Your task to perform on an android device: toggle data saver in the chrome app Image 0: 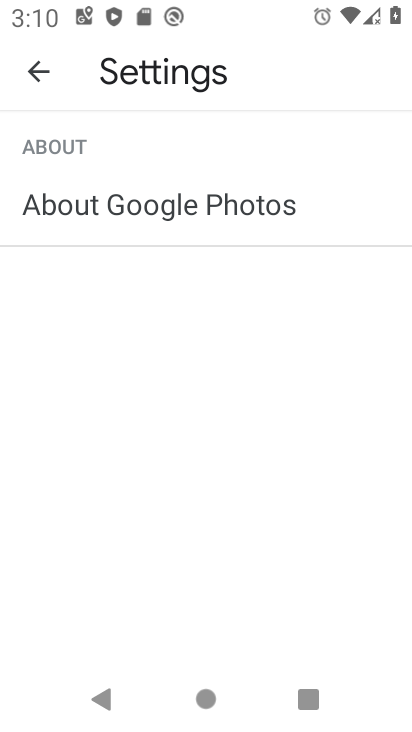
Step 0: press home button
Your task to perform on an android device: toggle data saver in the chrome app Image 1: 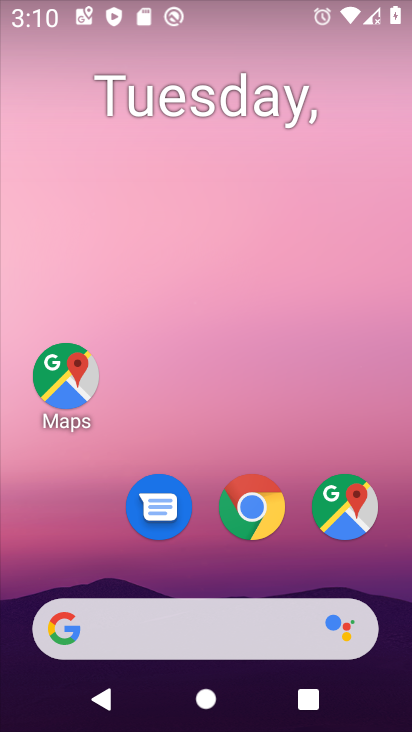
Step 1: drag from (294, 483) to (290, 173)
Your task to perform on an android device: toggle data saver in the chrome app Image 2: 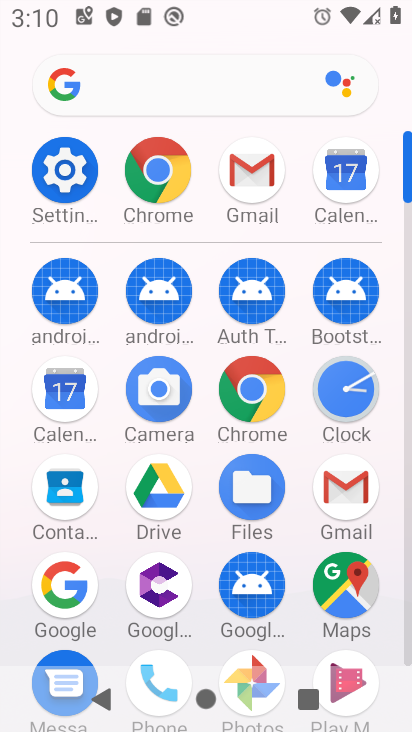
Step 2: click (263, 388)
Your task to perform on an android device: toggle data saver in the chrome app Image 3: 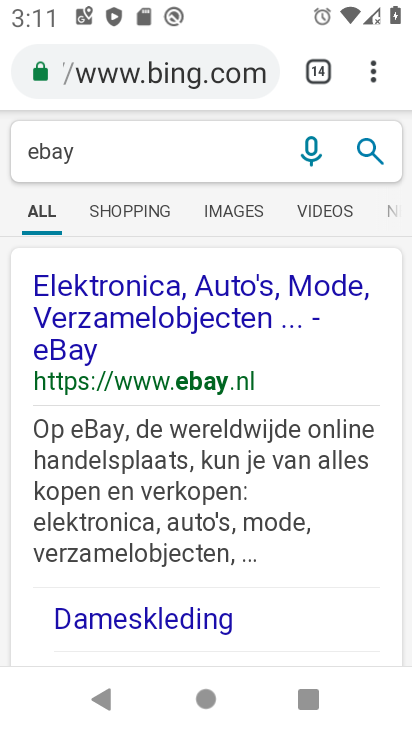
Step 3: click (364, 72)
Your task to perform on an android device: toggle data saver in the chrome app Image 4: 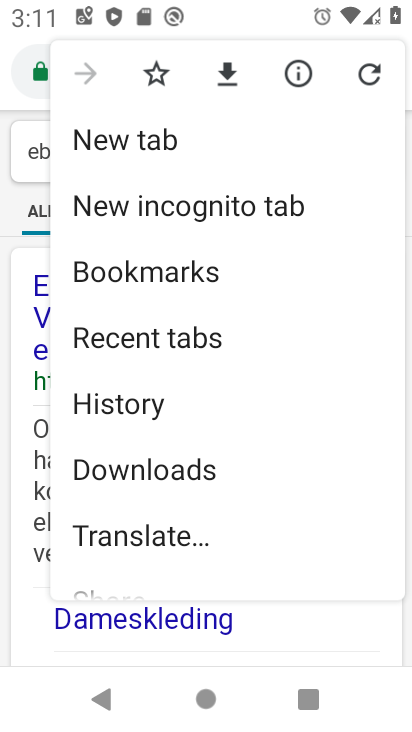
Step 4: drag from (219, 513) to (240, 286)
Your task to perform on an android device: toggle data saver in the chrome app Image 5: 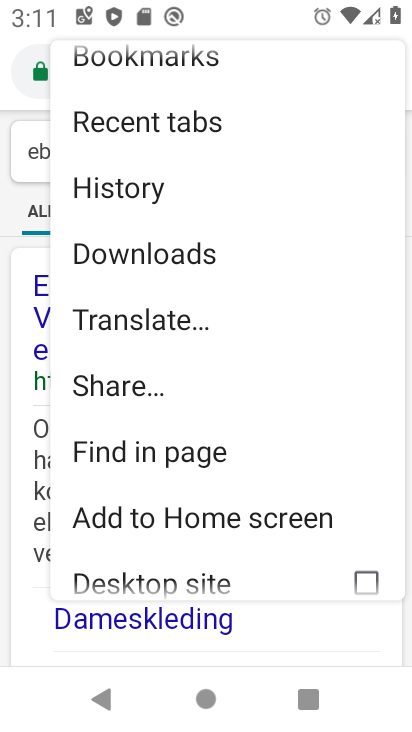
Step 5: drag from (159, 485) to (252, 215)
Your task to perform on an android device: toggle data saver in the chrome app Image 6: 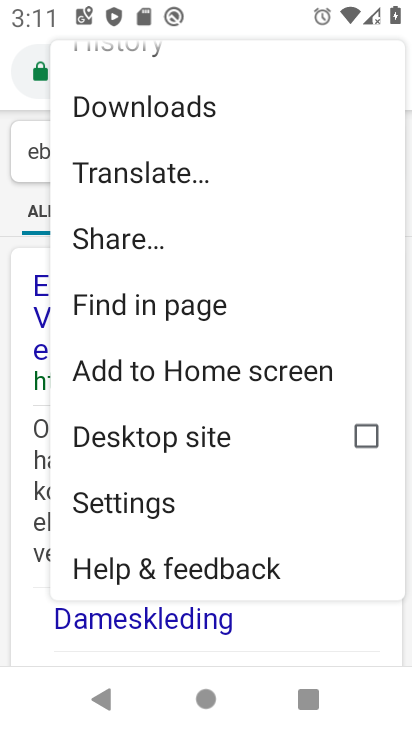
Step 6: click (163, 505)
Your task to perform on an android device: toggle data saver in the chrome app Image 7: 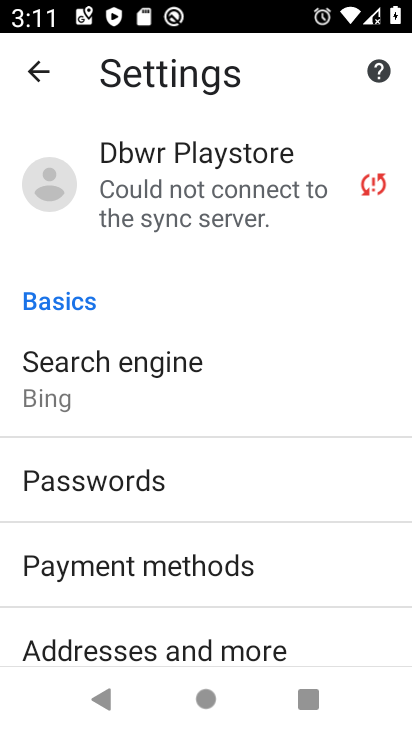
Step 7: drag from (204, 551) to (289, 229)
Your task to perform on an android device: toggle data saver in the chrome app Image 8: 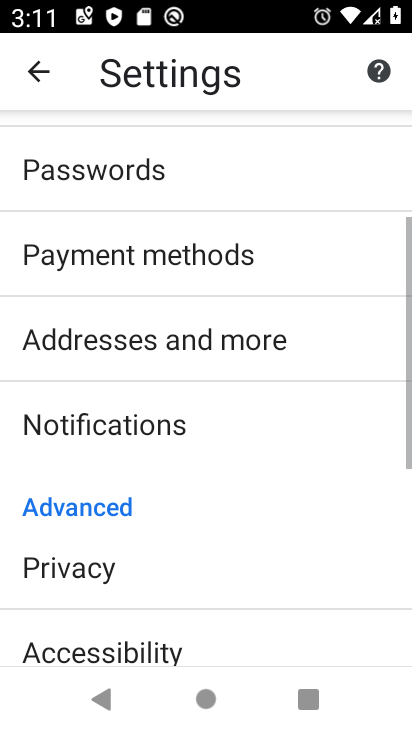
Step 8: drag from (175, 573) to (254, 299)
Your task to perform on an android device: toggle data saver in the chrome app Image 9: 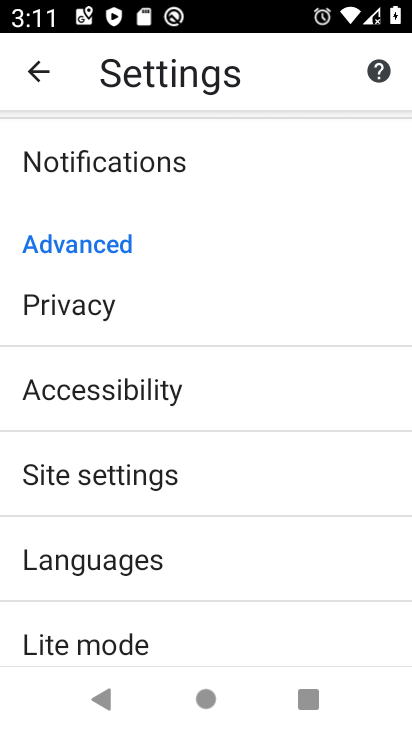
Step 9: drag from (134, 551) to (189, 401)
Your task to perform on an android device: toggle data saver in the chrome app Image 10: 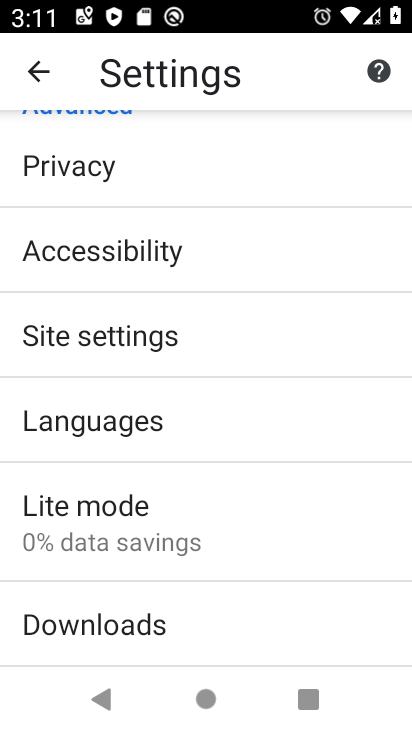
Step 10: click (146, 336)
Your task to perform on an android device: toggle data saver in the chrome app Image 11: 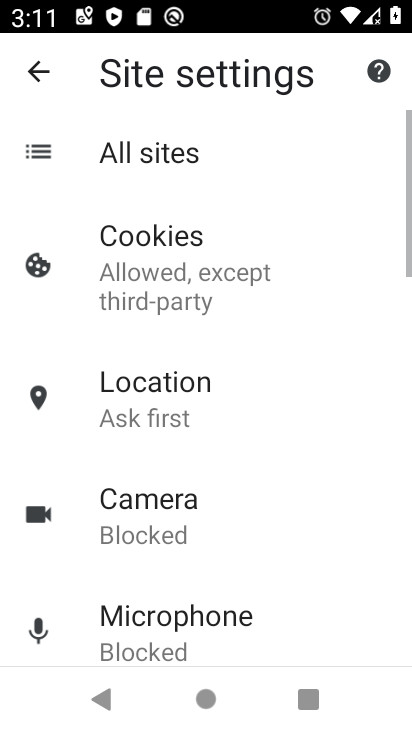
Step 11: click (43, 68)
Your task to perform on an android device: toggle data saver in the chrome app Image 12: 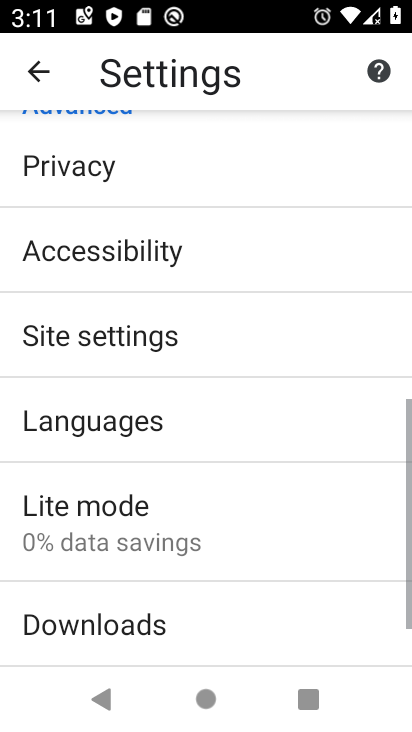
Step 12: click (156, 515)
Your task to perform on an android device: toggle data saver in the chrome app Image 13: 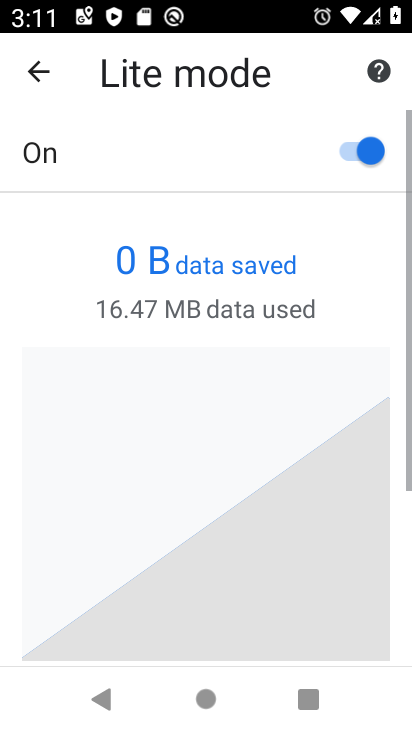
Step 13: click (354, 155)
Your task to perform on an android device: toggle data saver in the chrome app Image 14: 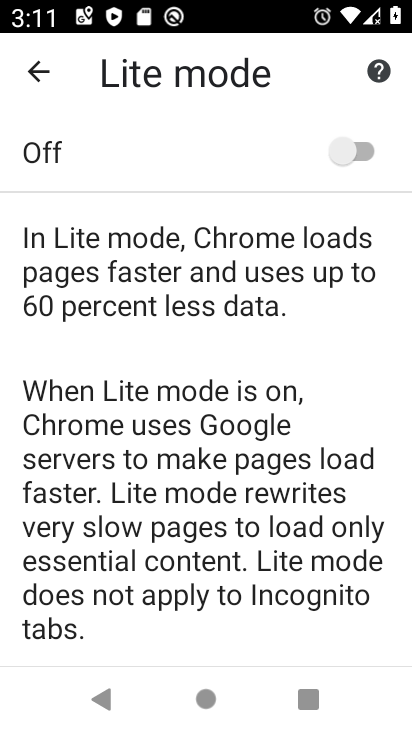
Step 14: task complete